Your task to perform on an android device: toggle pop-ups in chrome Image 0: 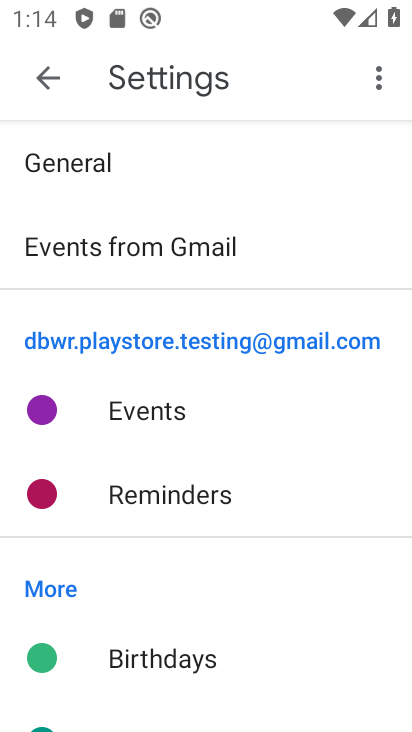
Step 0: press home button
Your task to perform on an android device: toggle pop-ups in chrome Image 1: 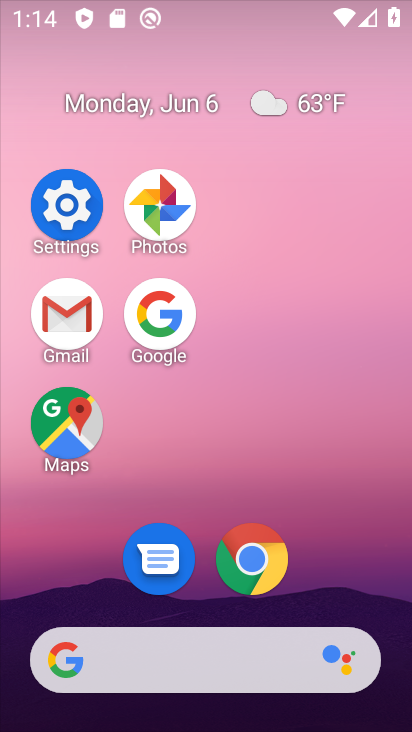
Step 1: click (266, 560)
Your task to perform on an android device: toggle pop-ups in chrome Image 2: 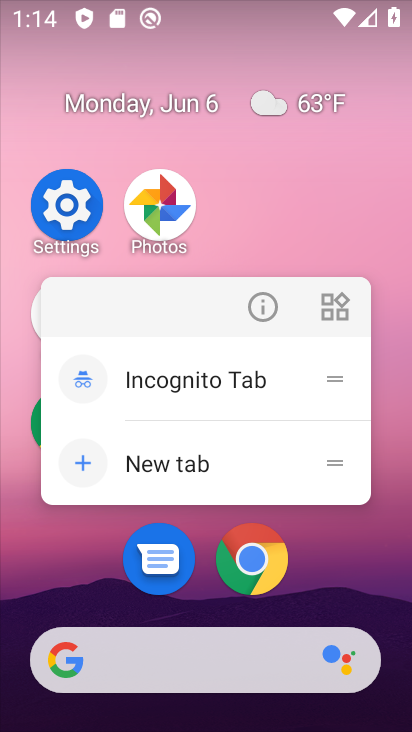
Step 2: click (277, 558)
Your task to perform on an android device: toggle pop-ups in chrome Image 3: 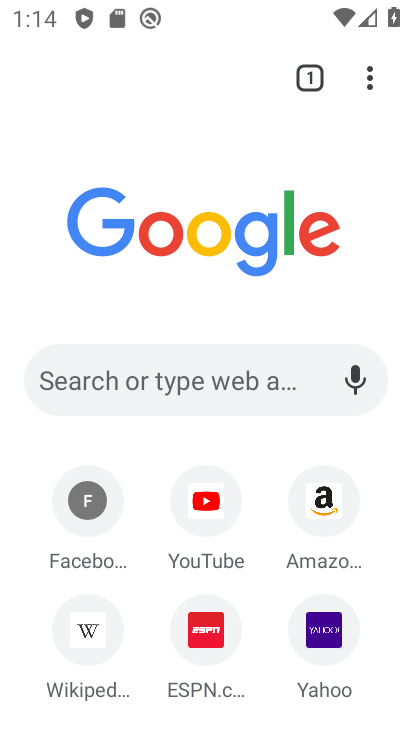
Step 3: click (364, 88)
Your task to perform on an android device: toggle pop-ups in chrome Image 4: 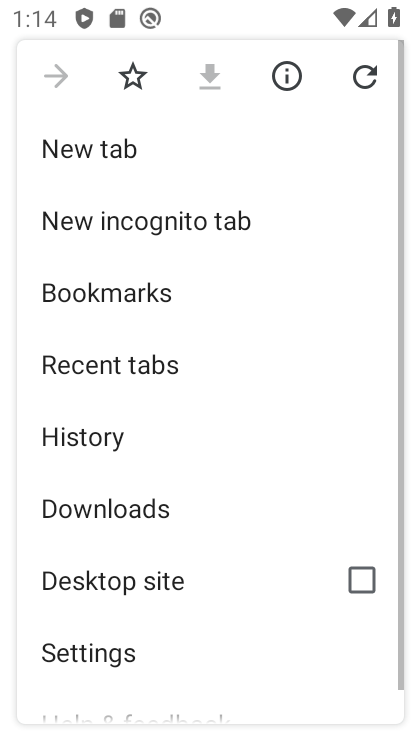
Step 4: drag from (202, 509) to (239, 202)
Your task to perform on an android device: toggle pop-ups in chrome Image 5: 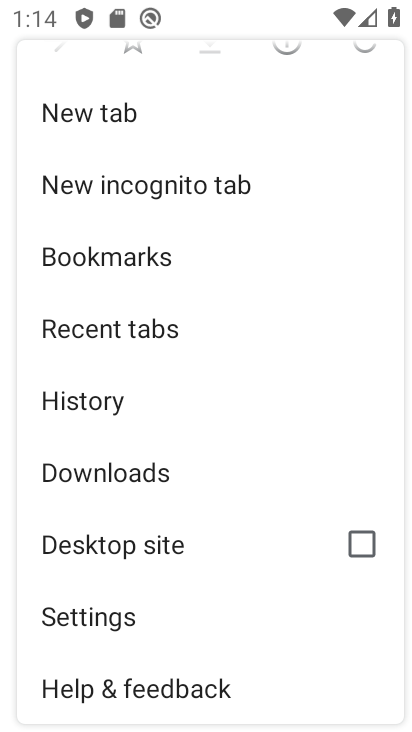
Step 5: click (192, 610)
Your task to perform on an android device: toggle pop-ups in chrome Image 6: 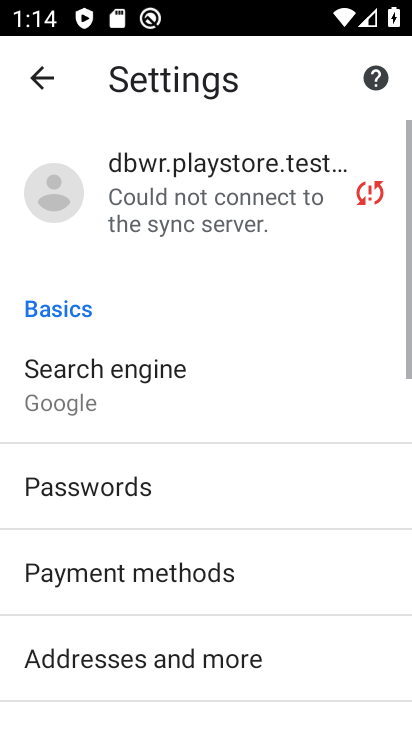
Step 6: drag from (192, 610) to (223, 279)
Your task to perform on an android device: toggle pop-ups in chrome Image 7: 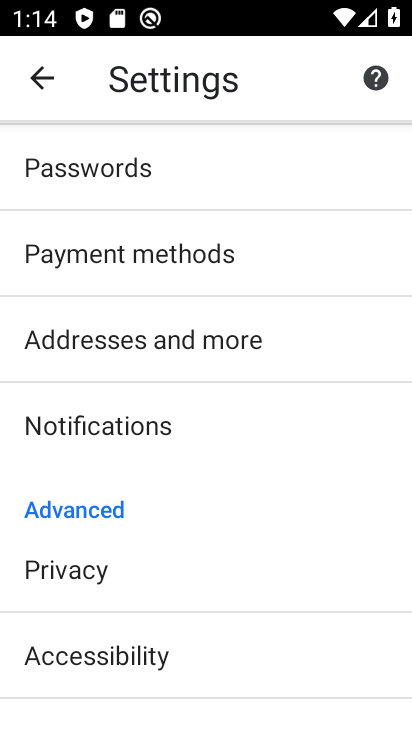
Step 7: drag from (224, 586) to (250, 278)
Your task to perform on an android device: toggle pop-ups in chrome Image 8: 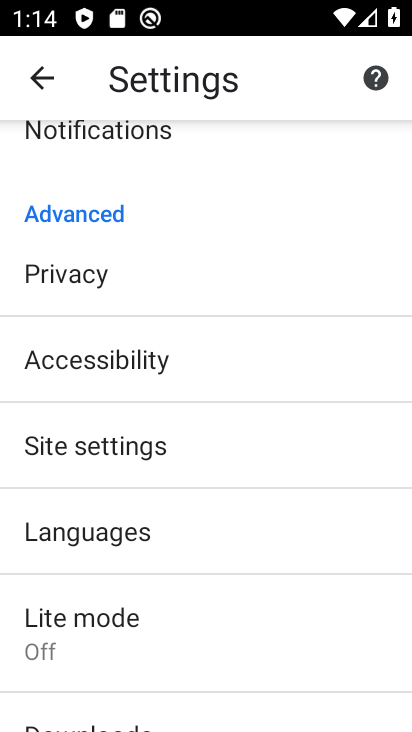
Step 8: click (221, 461)
Your task to perform on an android device: toggle pop-ups in chrome Image 9: 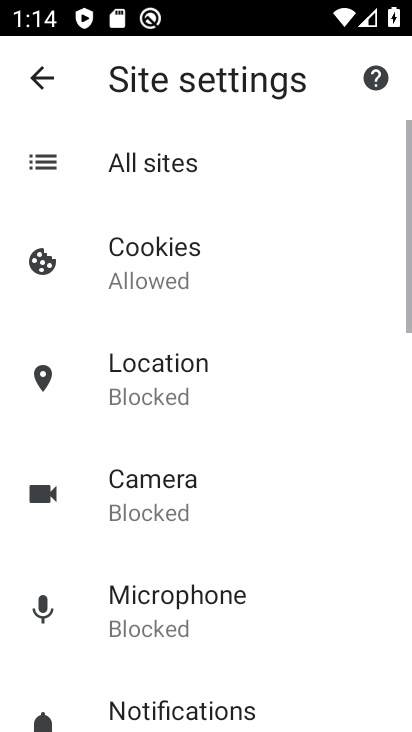
Step 9: drag from (258, 579) to (267, 299)
Your task to perform on an android device: toggle pop-ups in chrome Image 10: 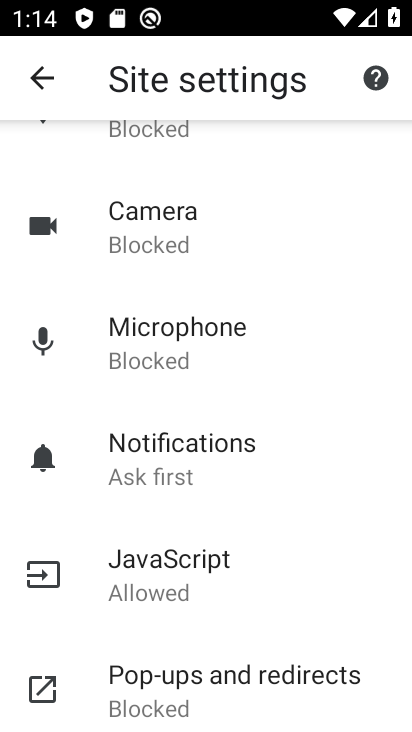
Step 10: drag from (213, 618) to (221, 315)
Your task to perform on an android device: toggle pop-ups in chrome Image 11: 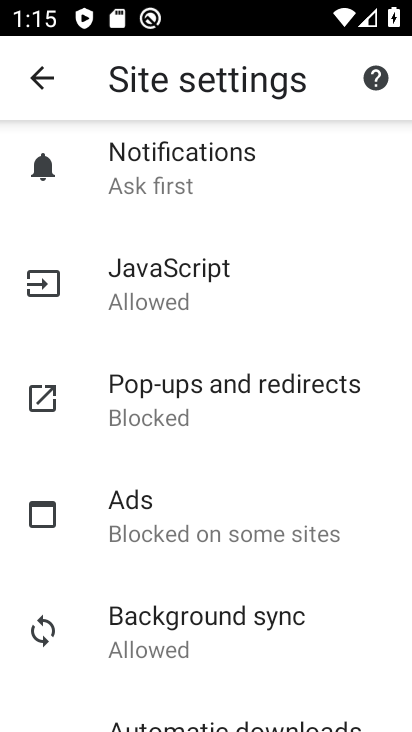
Step 11: click (229, 408)
Your task to perform on an android device: toggle pop-ups in chrome Image 12: 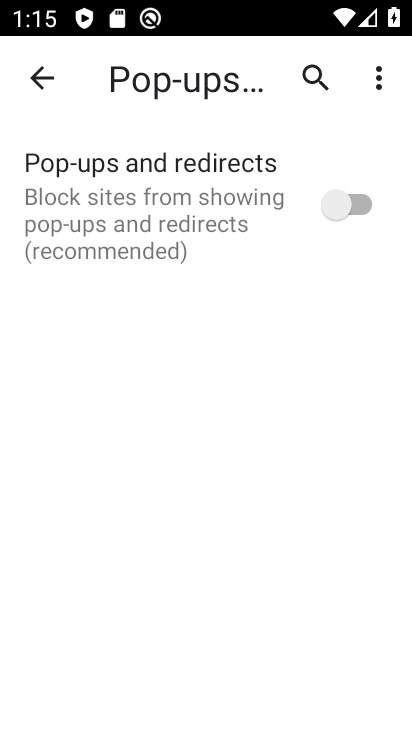
Step 12: click (363, 208)
Your task to perform on an android device: toggle pop-ups in chrome Image 13: 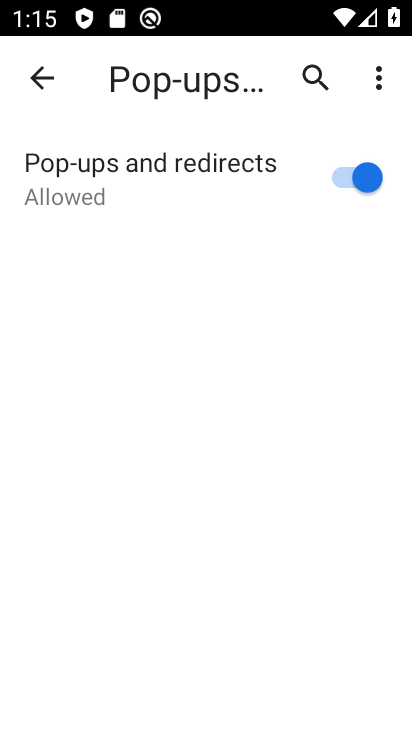
Step 13: task complete